Your task to perform on an android device: Open privacy settings Image 0: 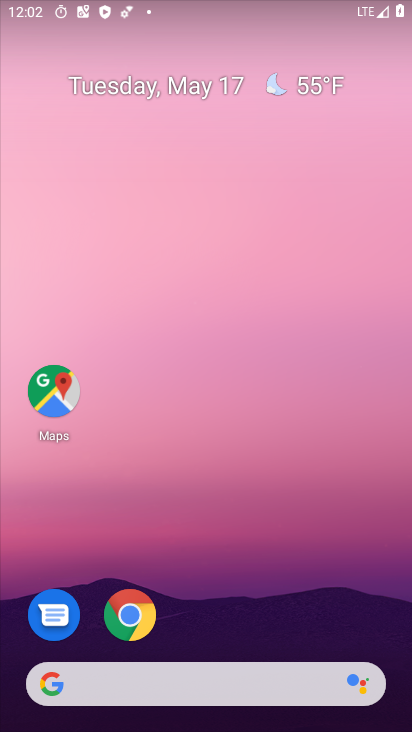
Step 0: press home button
Your task to perform on an android device: Open privacy settings Image 1: 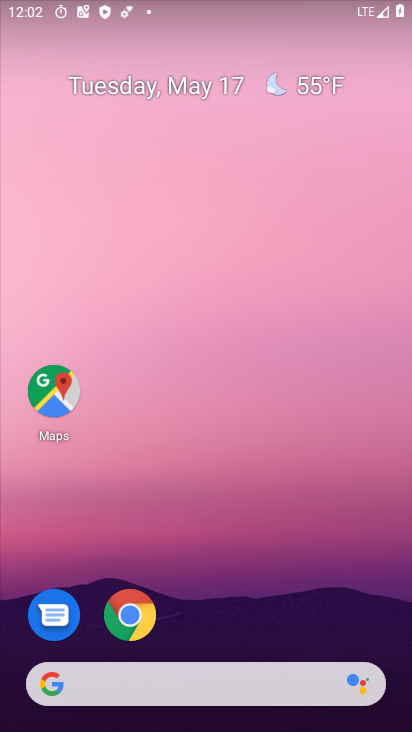
Step 1: press home button
Your task to perform on an android device: Open privacy settings Image 2: 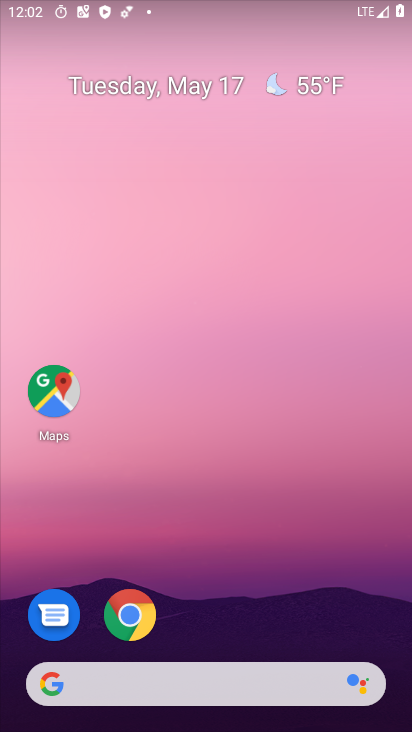
Step 2: drag from (187, 629) to (222, 197)
Your task to perform on an android device: Open privacy settings Image 3: 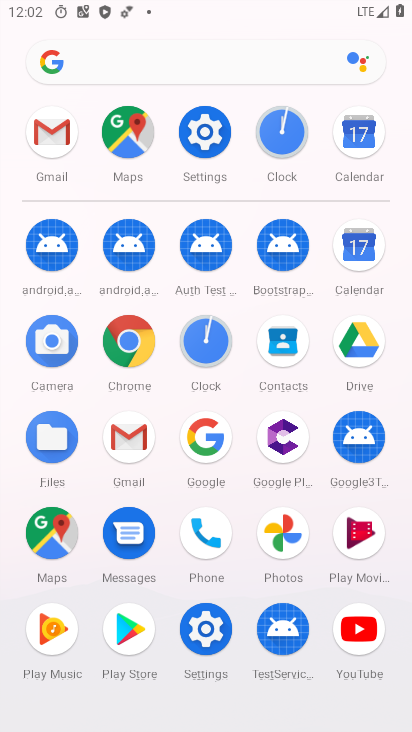
Step 3: click (199, 601)
Your task to perform on an android device: Open privacy settings Image 4: 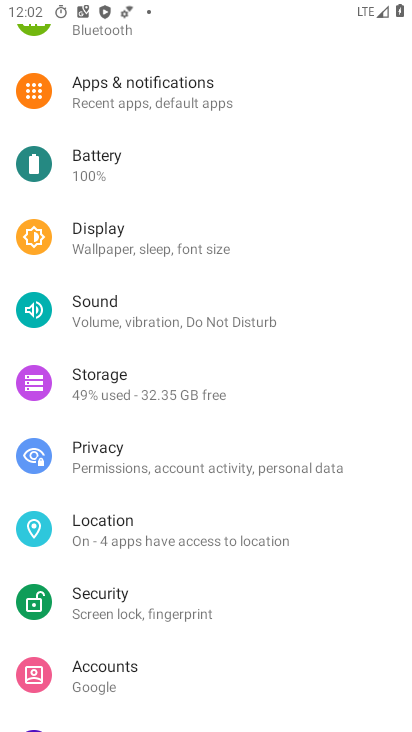
Step 4: click (126, 443)
Your task to perform on an android device: Open privacy settings Image 5: 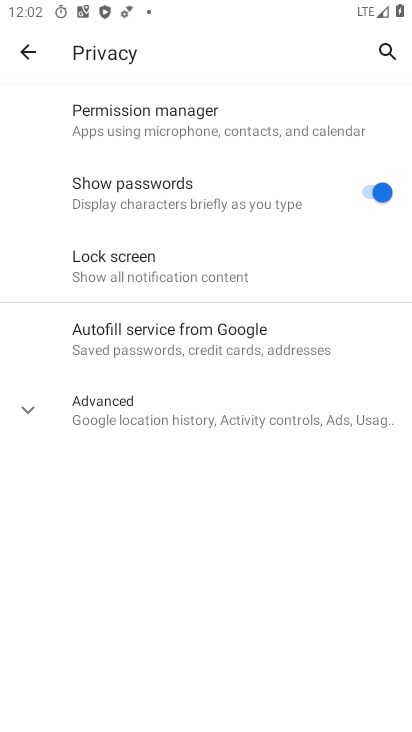
Step 5: task complete